Your task to perform on an android device: Open Reddit.com Image 0: 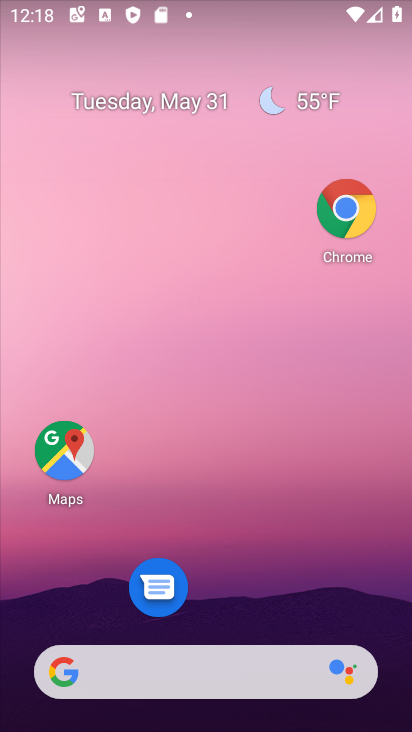
Step 0: click (198, 665)
Your task to perform on an android device: Open Reddit.com Image 1: 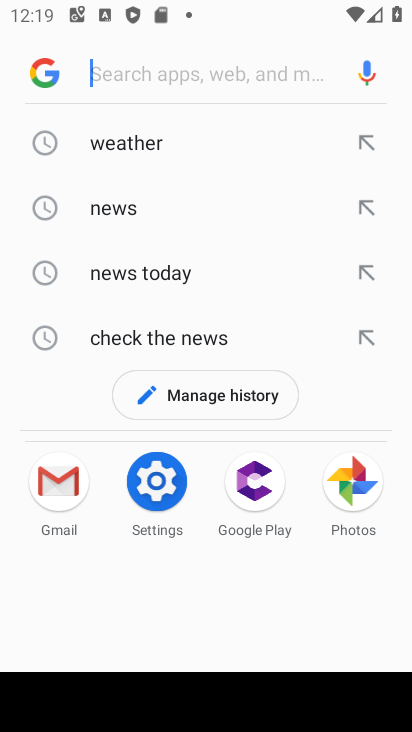
Step 1: type "reddit"
Your task to perform on an android device: Open Reddit.com Image 2: 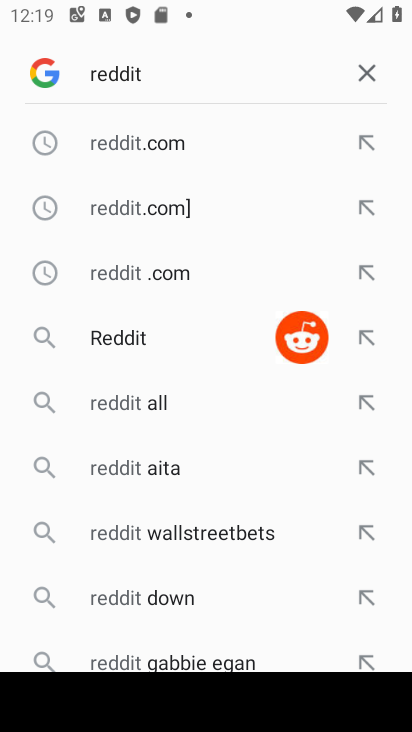
Step 2: click (163, 218)
Your task to perform on an android device: Open Reddit.com Image 3: 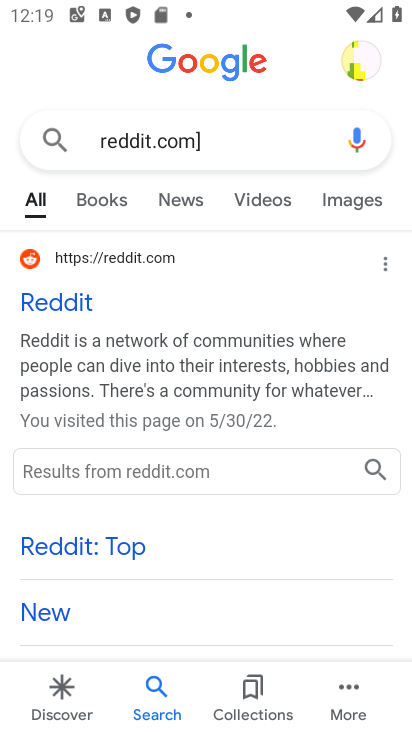
Step 3: click (58, 318)
Your task to perform on an android device: Open Reddit.com Image 4: 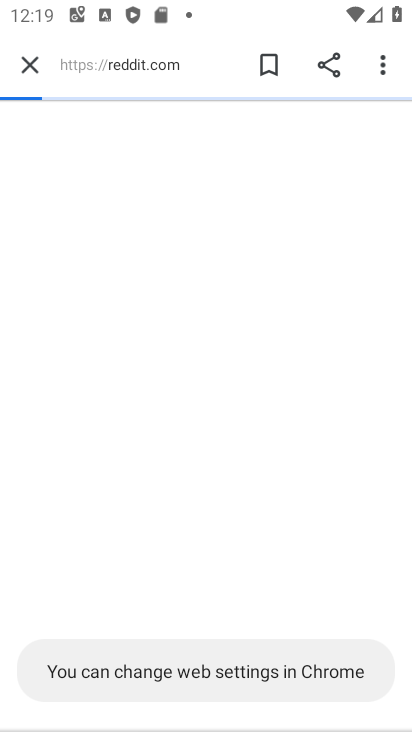
Step 4: click (55, 309)
Your task to perform on an android device: Open Reddit.com Image 5: 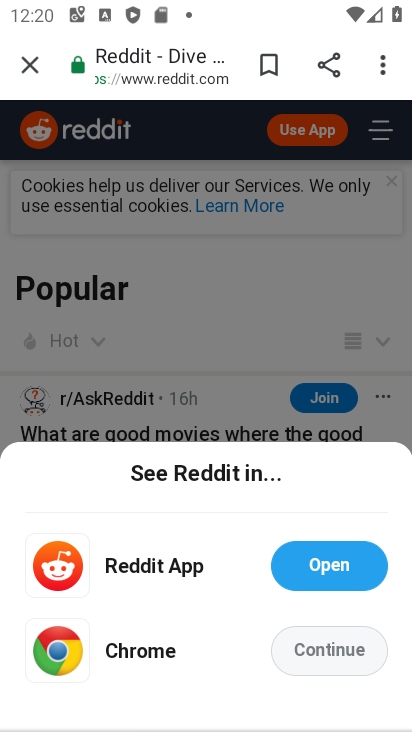
Step 5: task complete